Your task to perform on an android device: Search for seafood restaurants on Google Maps Image 0: 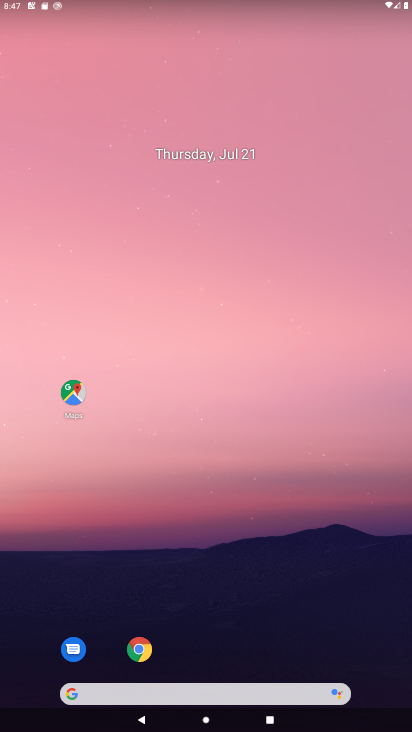
Step 0: drag from (196, 650) to (216, 38)
Your task to perform on an android device: Search for seafood restaurants on Google Maps Image 1: 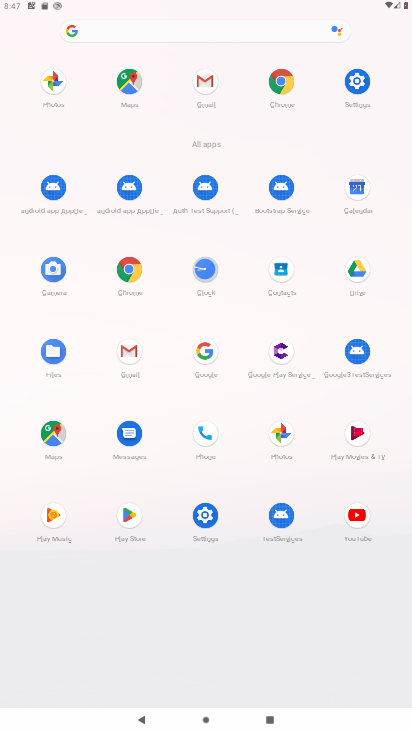
Step 1: click (54, 430)
Your task to perform on an android device: Search for seafood restaurants on Google Maps Image 2: 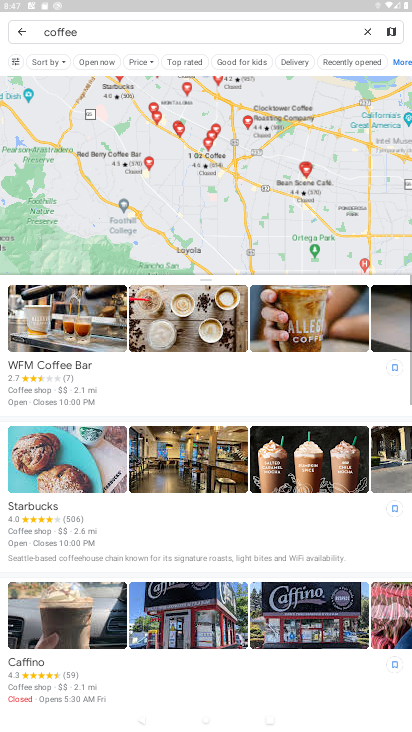
Step 2: click (362, 35)
Your task to perform on an android device: Search for seafood restaurants on Google Maps Image 3: 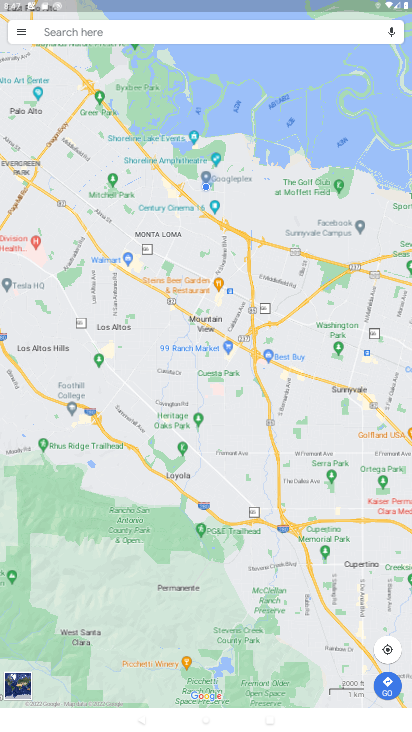
Step 3: click (130, 33)
Your task to perform on an android device: Search for seafood restaurants on Google Maps Image 4: 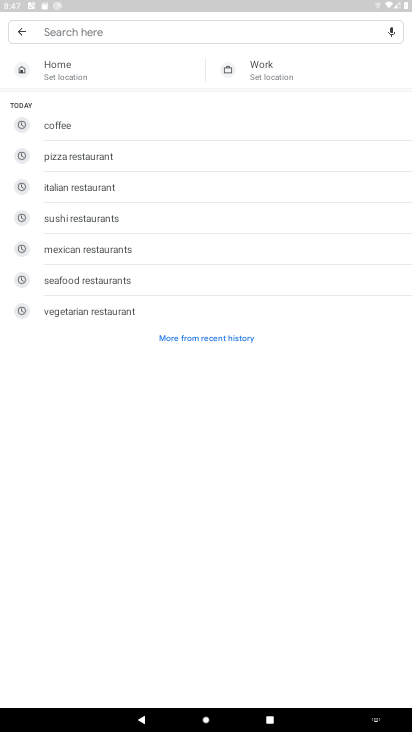
Step 4: click (125, 283)
Your task to perform on an android device: Search for seafood restaurants on Google Maps Image 5: 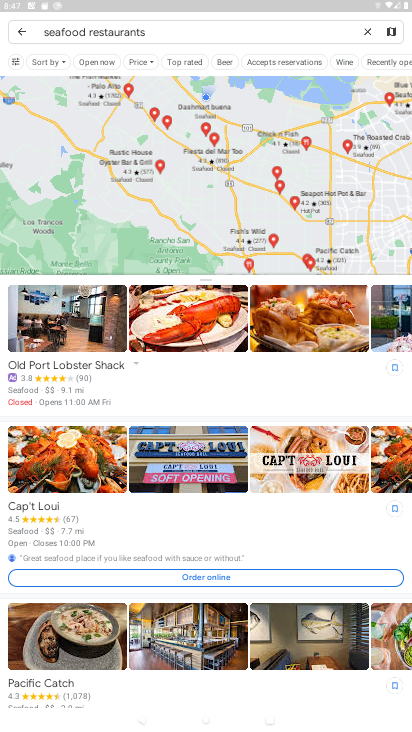
Step 5: task complete